Your task to perform on an android device: Open the map Image 0: 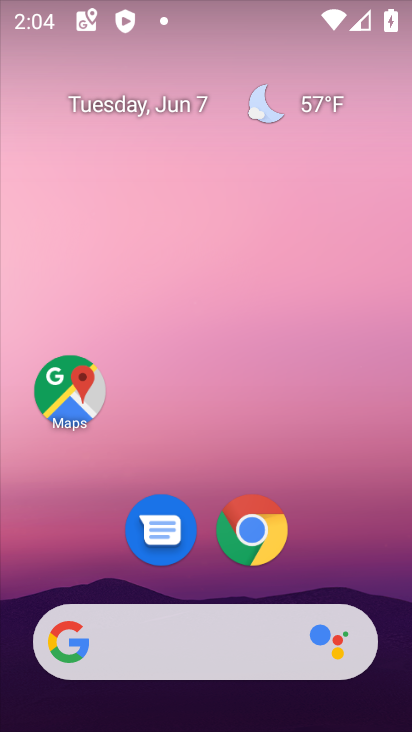
Step 0: click (69, 397)
Your task to perform on an android device: Open the map Image 1: 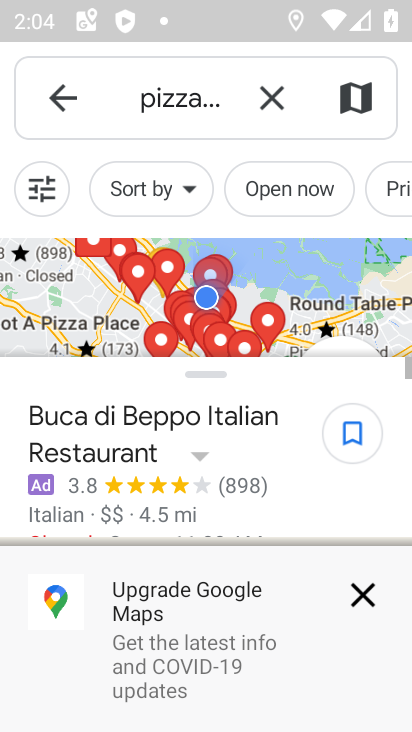
Step 1: task complete